Your task to perform on an android device: turn on showing notifications on the lock screen Image 0: 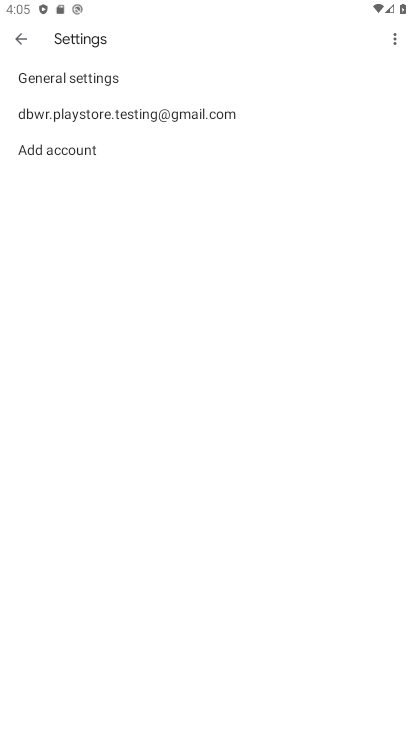
Step 0: press home button
Your task to perform on an android device: turn on showing notifications on the lock screen Image 1: 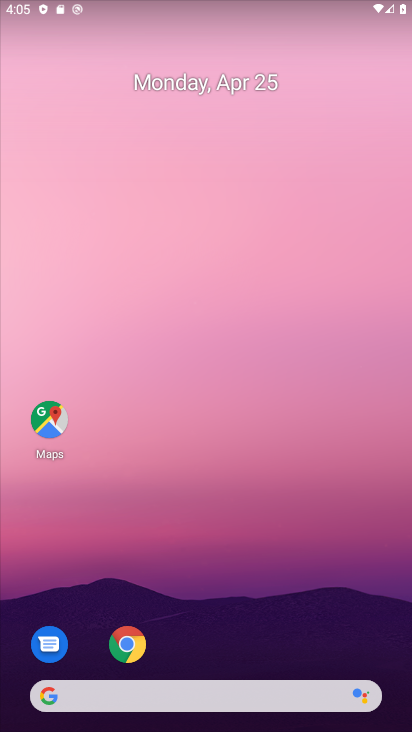
Step 1: drag from (207, 651) to (178, 232)
Your task to perform on an android device: turn on showing notifications on the lock screen Image 2: 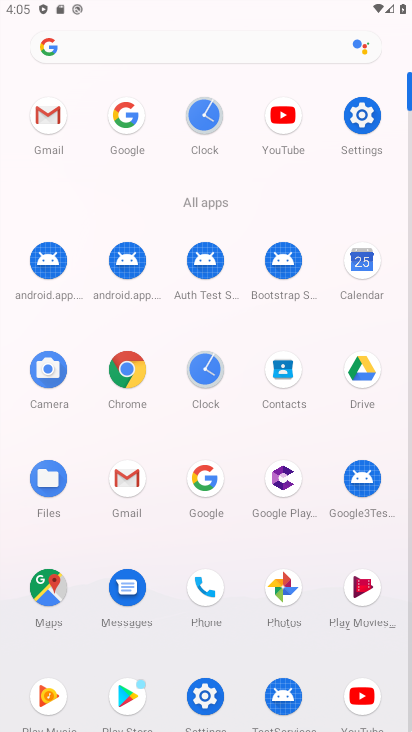
Step 2: click (341, 126)
Your task to perform on an android device: turn on showing notifications on the lock screen Image 3: 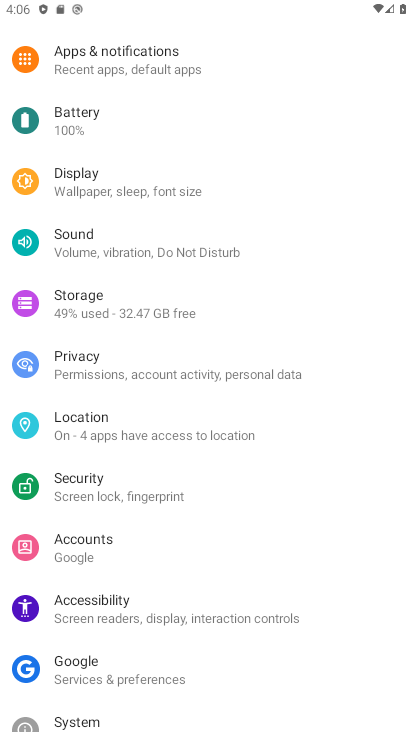
Step 3: click (153, 72)
Your task to perform on an android device: turn on showing notifications on the lock screen Image 4: 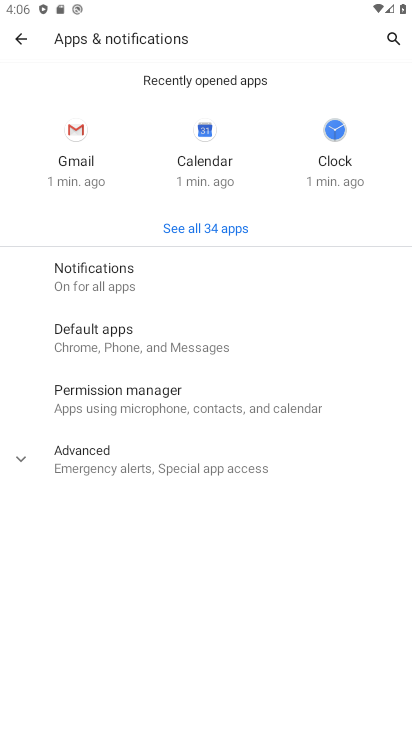
Step 4: click (128, 289)
Your task to perform on an android device: turn on showing notifications on the lock screen Image 5: 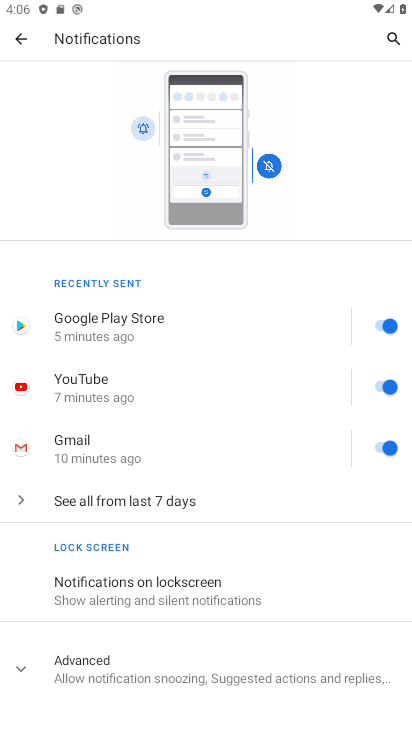
Step 5: click (195, 595)
Your task to perform on an android device: turn on showing notifications on the lock screen Image 6: 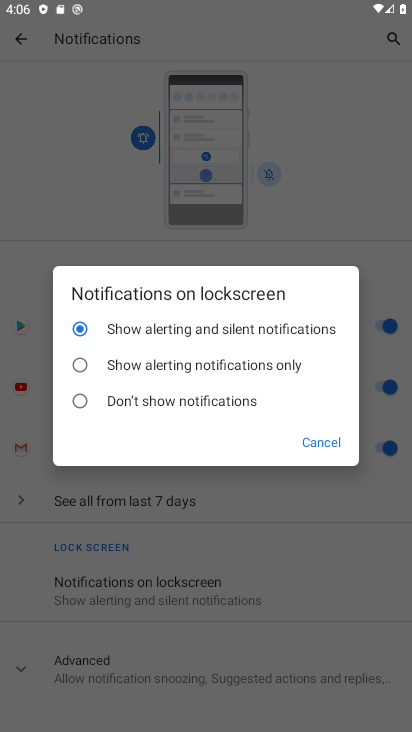
Step 6: task complete